Your task to perform on an android device: What's the weather? Image 0: 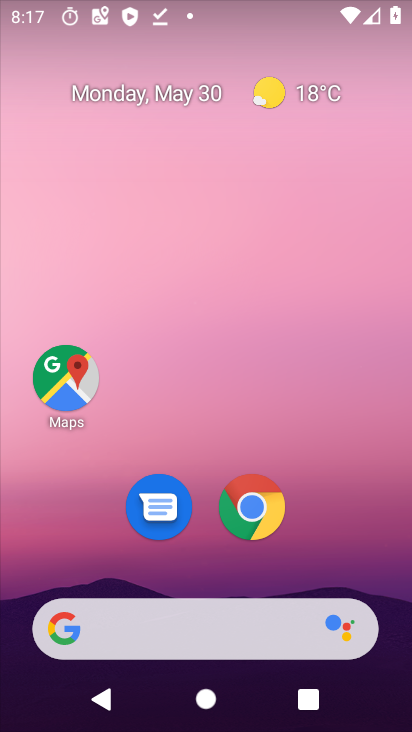
Step 0: drag from (376, 542) to (344, 160)
Your task to perform on an android device: What's the weather? Image 1: 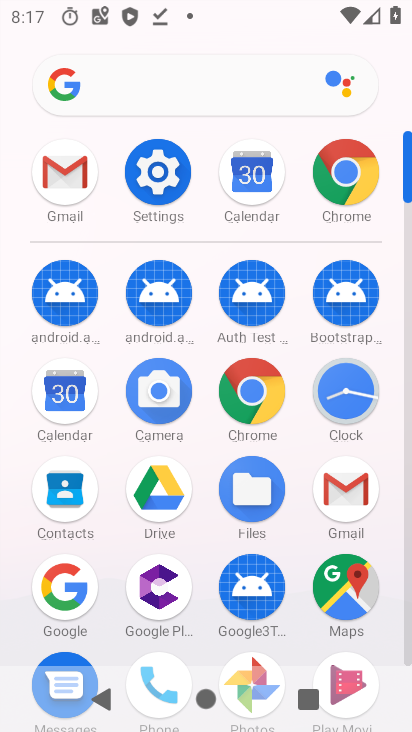
Step 1: click (345, 153)
Your task to perform on an android device: What's the weather? Image 2: 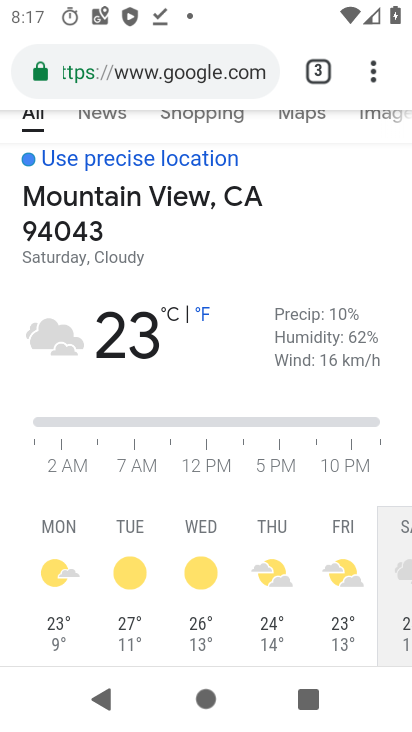
Step 2: click (123, 72)
Your task to perform on an android device: What's the weather? Image 3: 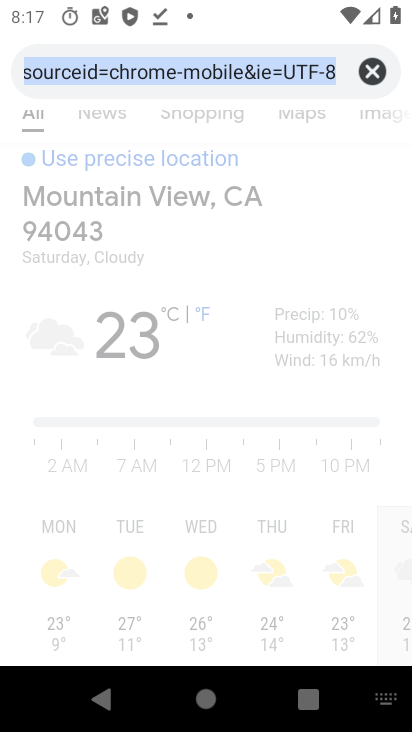
Step 3: click (364, 72)
Your task to perform on an android device: What's the weather? Image 4: 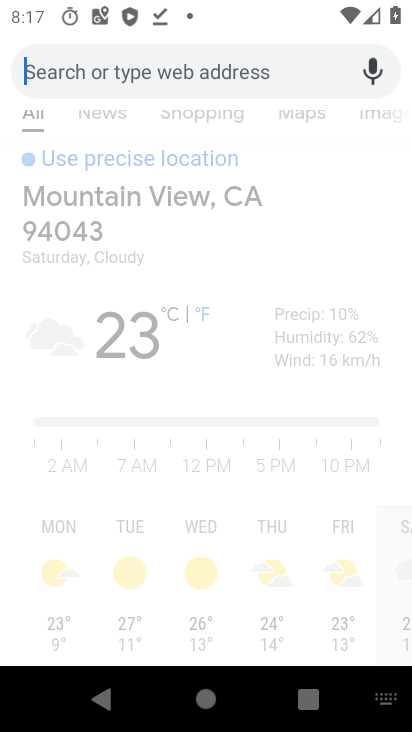
Step 4: type "what's the weather"
Your task to perform on an android device: What's the weather? Image 5: 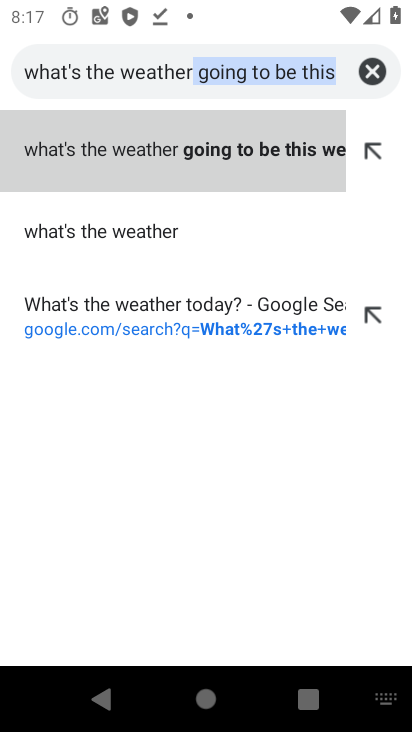
Step 5: click (76, 236)
Your task to perform on an android device: What's the weather? Image 6: 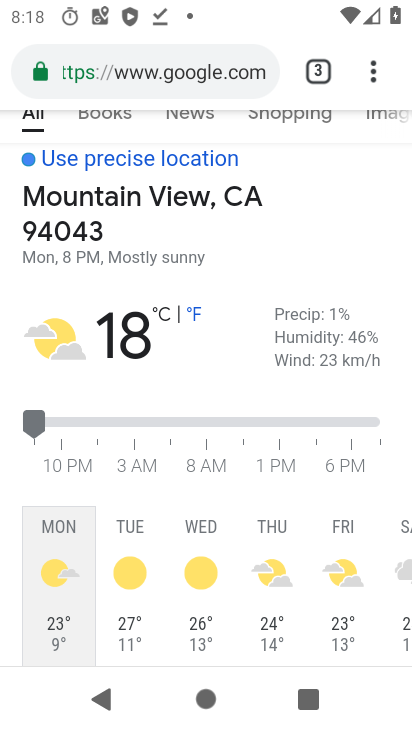
Step 6: task complete